Your task to perform on an android device: See recent photos Image 0: 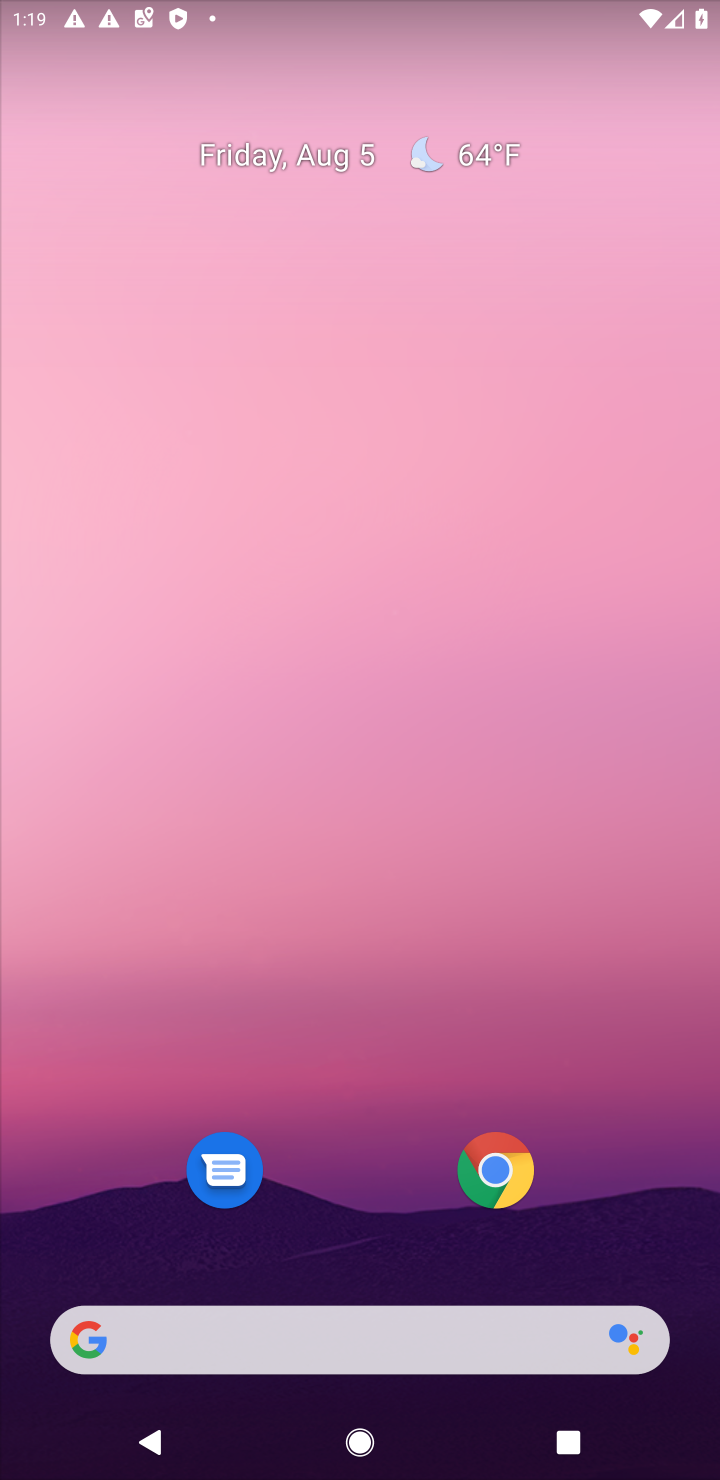
Step 0: drag from (44, 1477) to (467, 295)
Your task to perform on an android device: See recent photos Image 1: 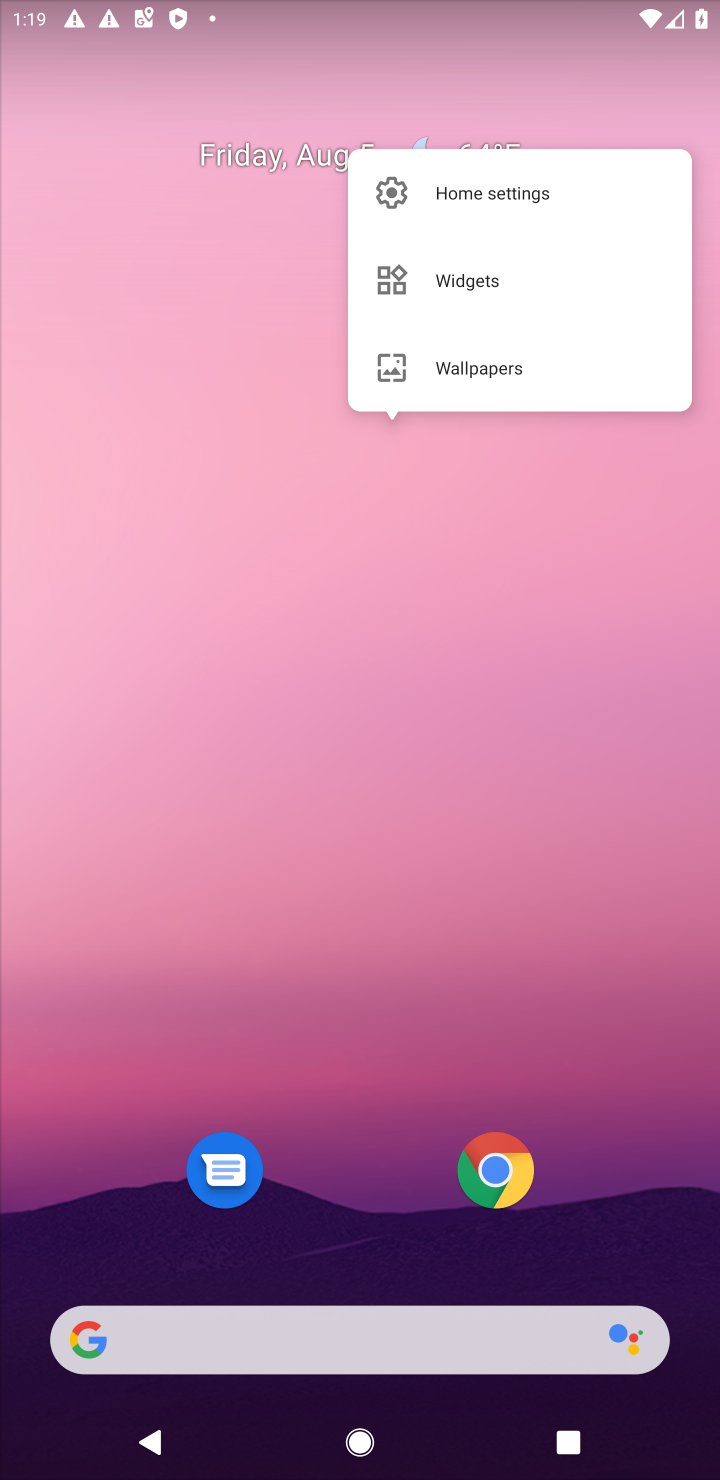
Step 1: drag from (138, 1122) to (339, 197)
Your task to perform on an android device: See recent photos Image 2: 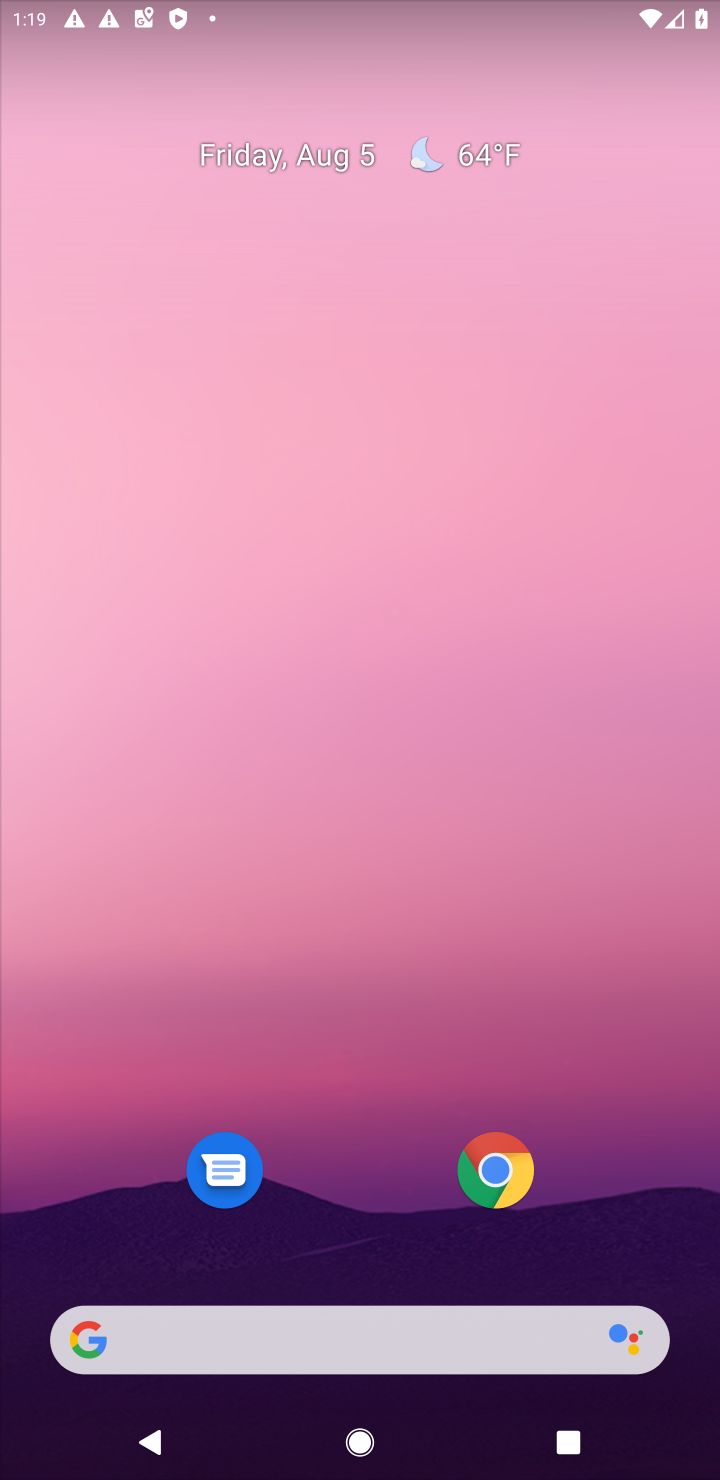
Step 2: drag from (275, 629) to (365, 230)
Your task to perform on an android device: See recent photos Image 3: 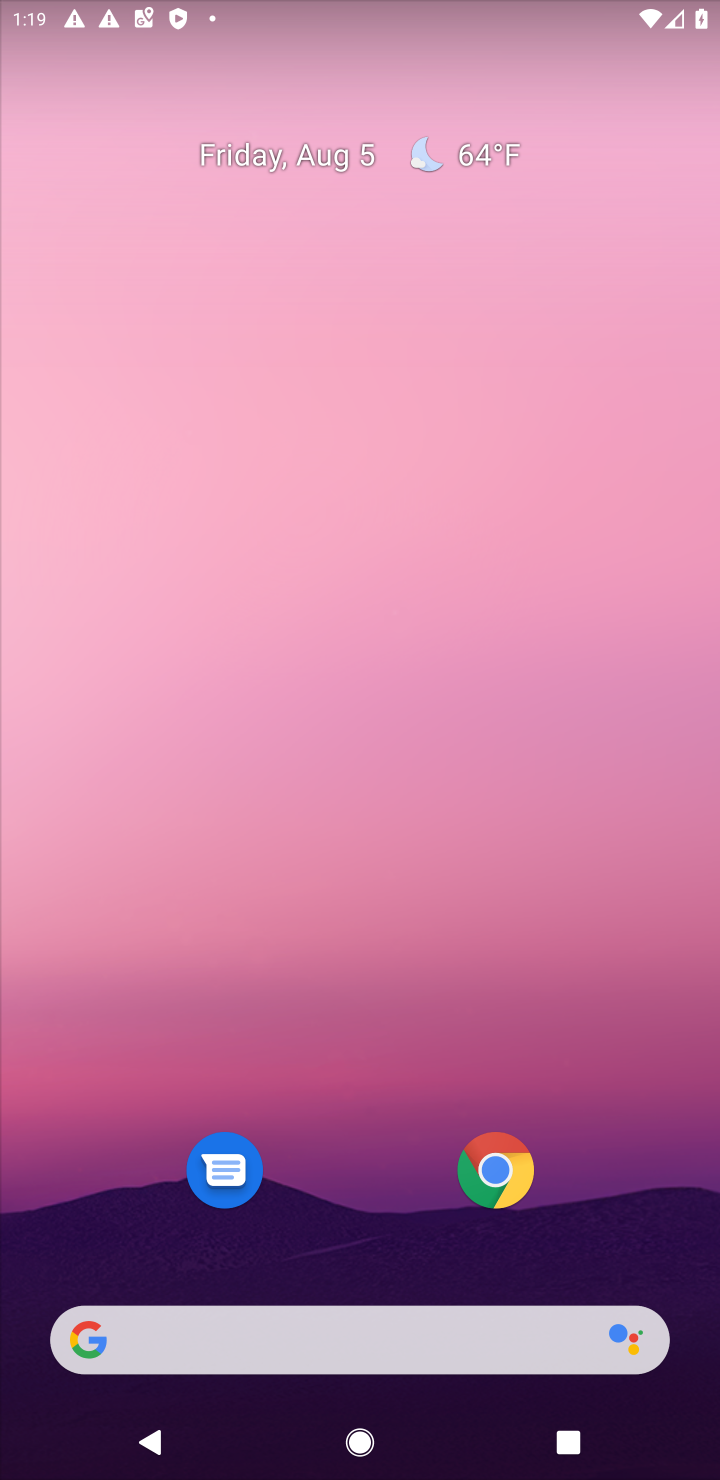
Step 3: drag from (312, 568) to (443, 89)
Your task to perform on an android device: See recent photos Image 4: 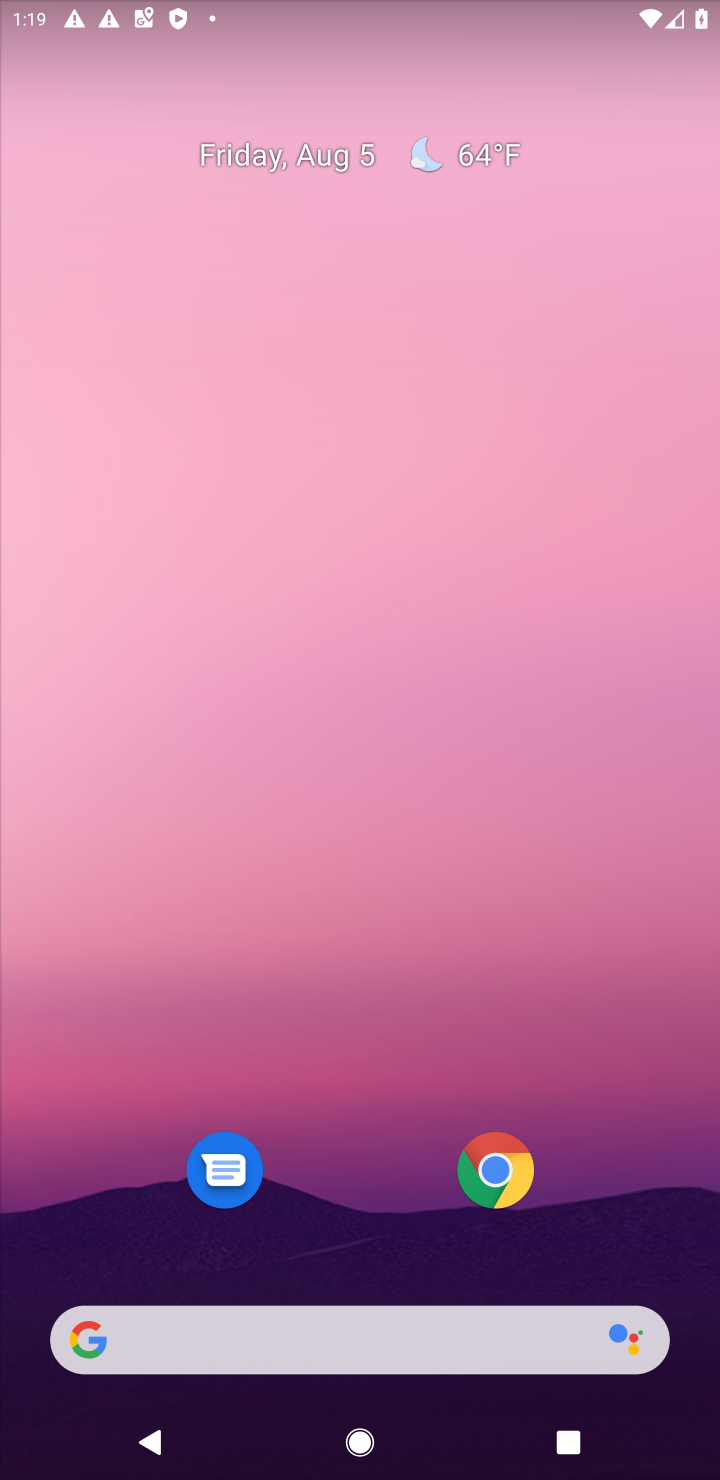
Step 4: drag from (120, 1000) to (370, 232)
Your task to perform on an android device: See recent photos Image 5: 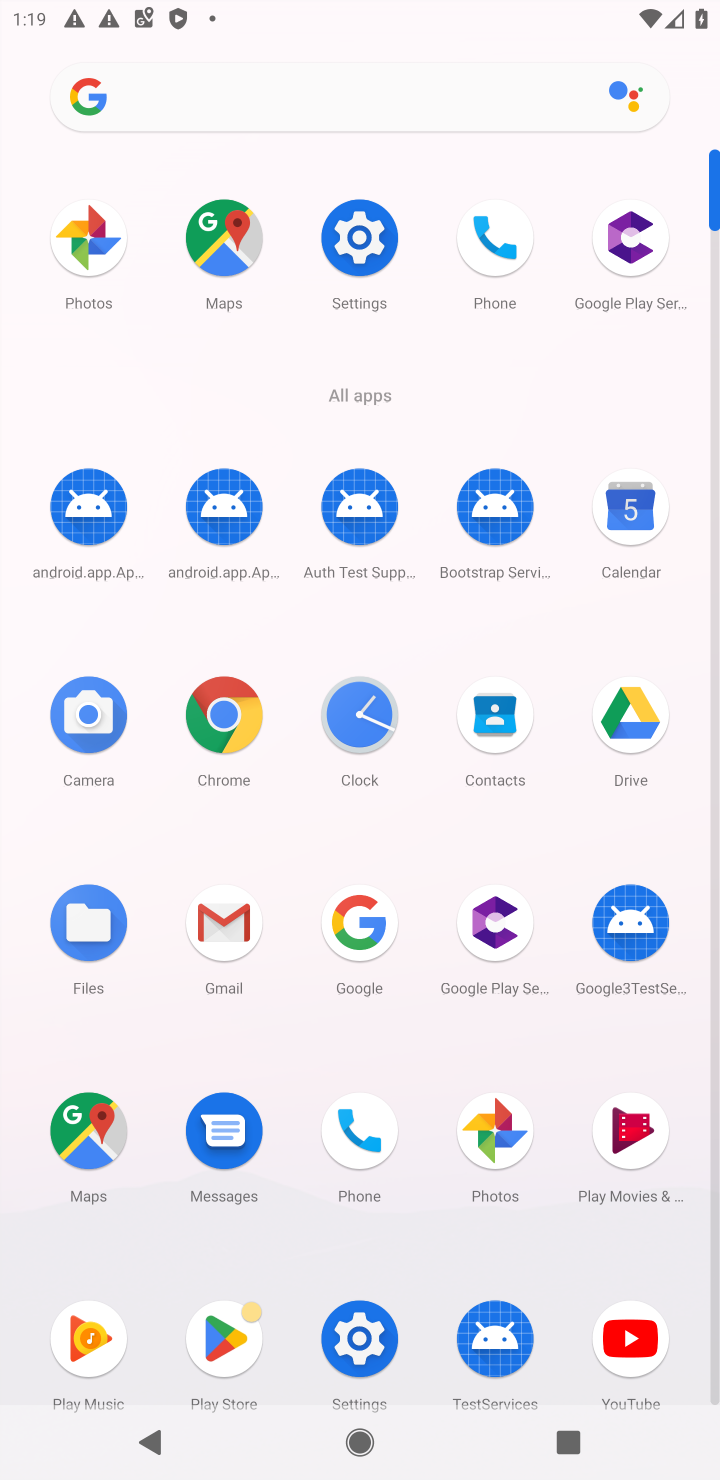
Step 5: click (468, 1145)
Your task to perform on an android device: See recent photos Image 6: 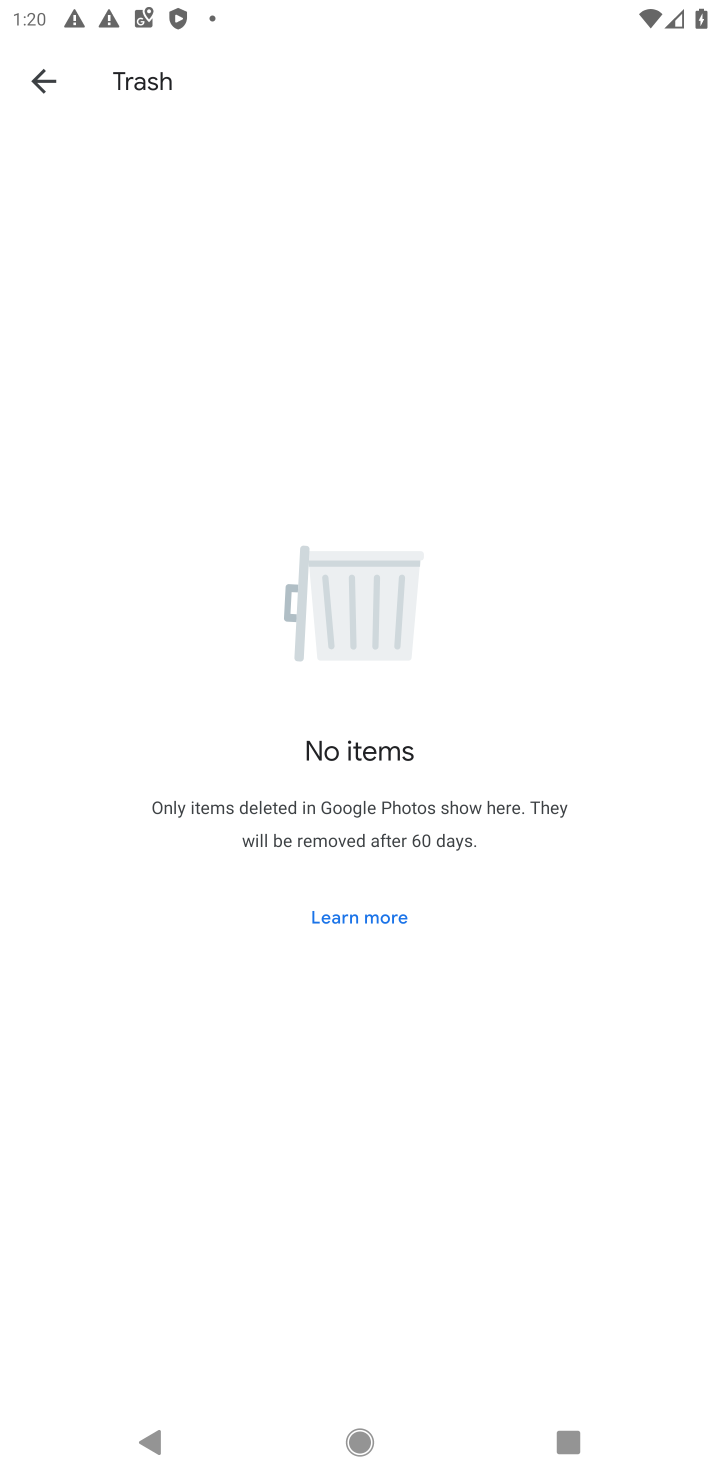
Step 6: task complete